Your task to perform on an android device: stop showing notifications on the lock screen Image 0: 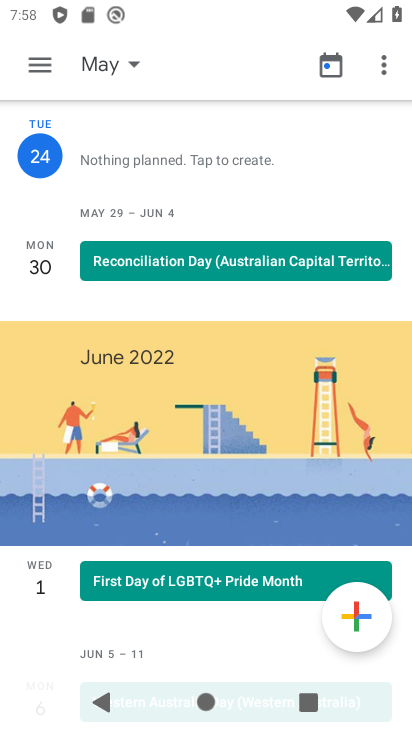
Step 0: press home button
Your task to perform on an android device: stop showing notifications on the lock screen Image 1: 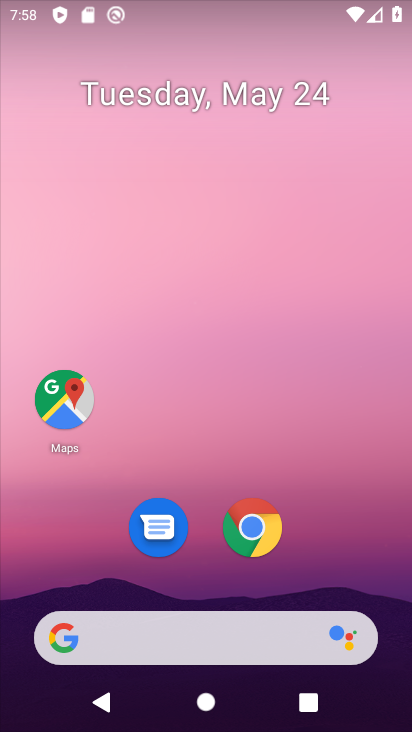
Step 1: drag from (308, 556) to (250, 180)
Your task to perform on an android device: stop showing notifications on the lock screen Image 2: 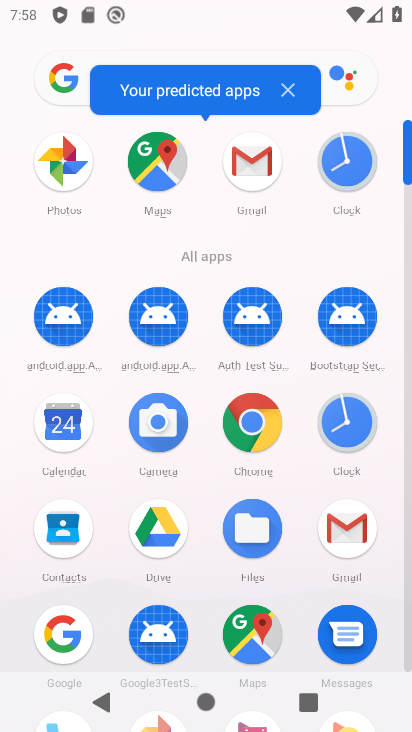
Step 2: drag from (296, 515) to (279, 174)
Your task to perform on an android device: stop showing notifications on the lock screen Image 3: 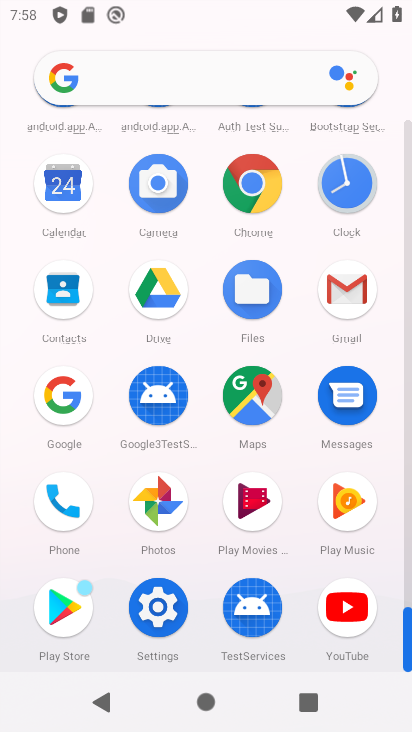
Step 3: click (177, 592)
Your task to perform on an android device: stop showing notifications on the lock screen Image 4: 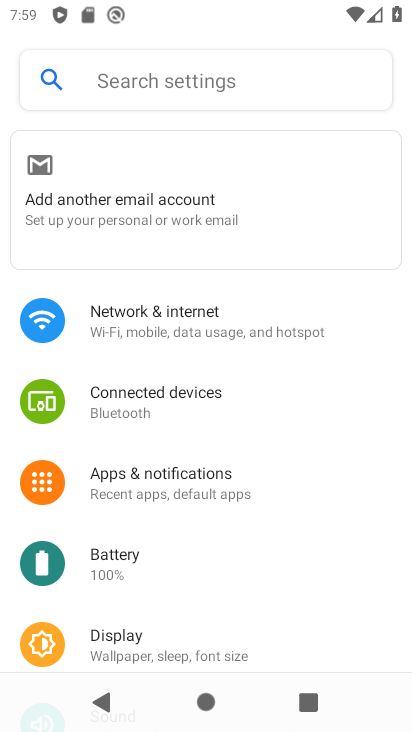
Step 4: click (146, 481)
Your task to perform on an android device: stop showing notifications on the lock screen Image 5: 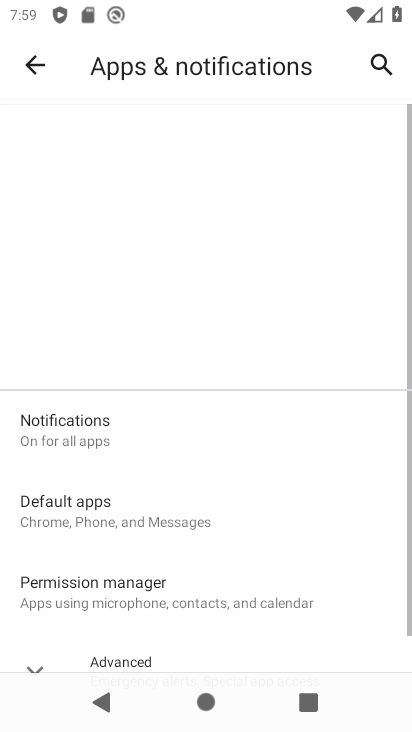
Step 5: click (109, 443)
Your task to perform on an android device: stop showing notifications on the lock screen Image 6: 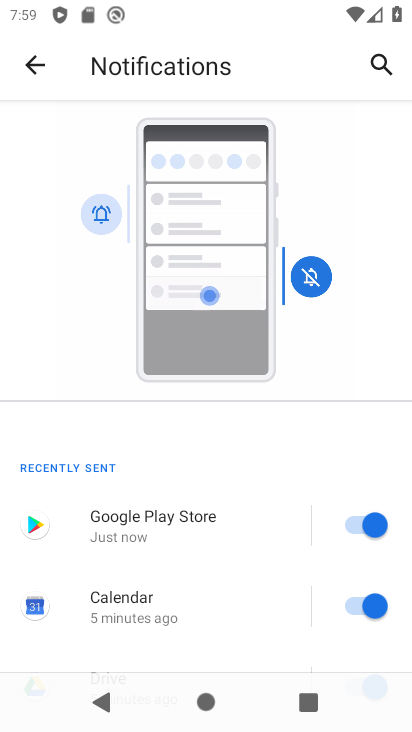
Step 6: drag from (150, 594) to (173, 233)
Your task to perform on an android device: stop showing notifications on the lock screen Image 7: 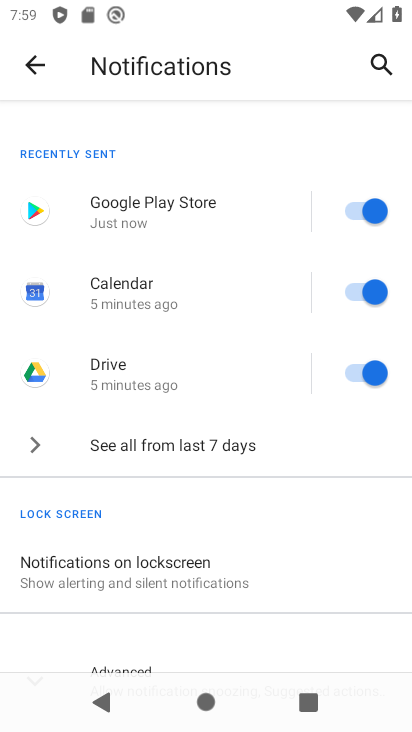
Step 7: click (203, 565)
Your task to perform on an android device: stop showing notifications on the lock screen Image 8: 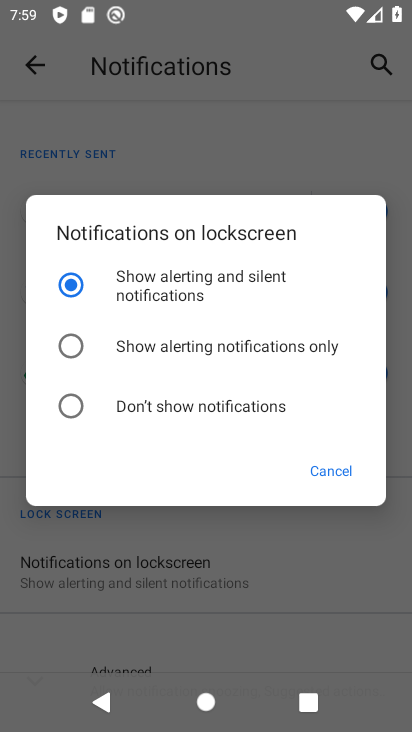
Step 8: click (137, 406)
Your task to perform on an android device: stop showing notifications on the lock screen Image 9: 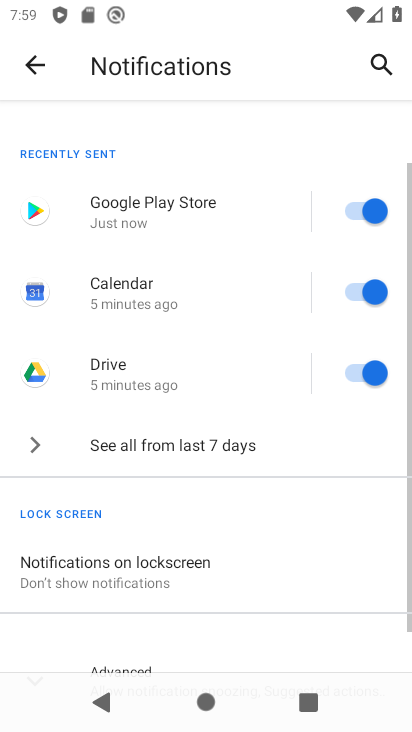
Step 9: task complete